Your task to perform on an android device: delete a single message in the gmail app Image 0: 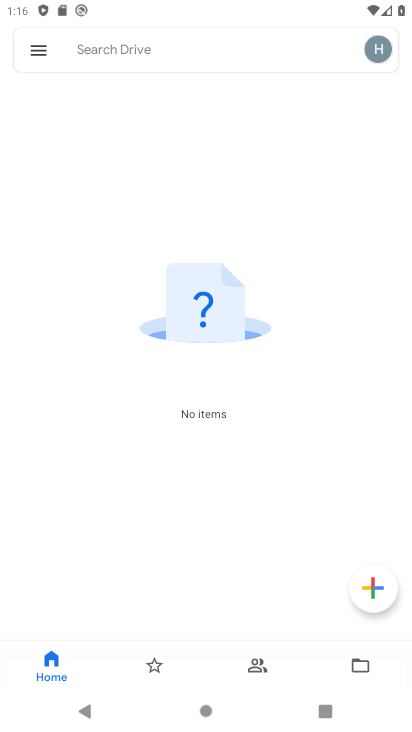
Step 0: drag from (193, 597) to (291, 233)
Your task to perform on an android device: delete a single message in the gmail app Image 1: 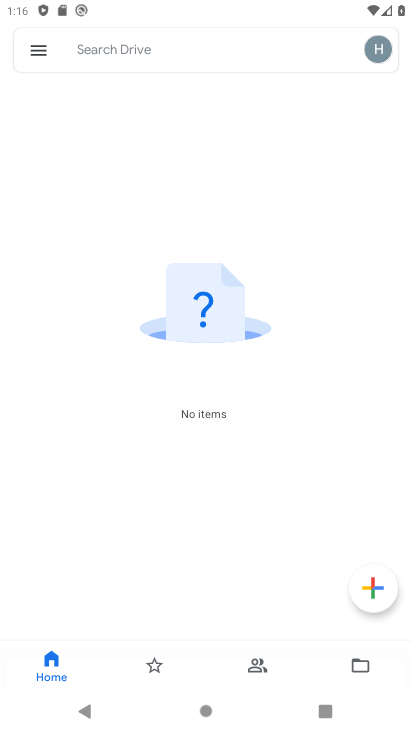
Step 1: press home button
Your task to perform on an android device: delete a single message in the gmail app Image 2: 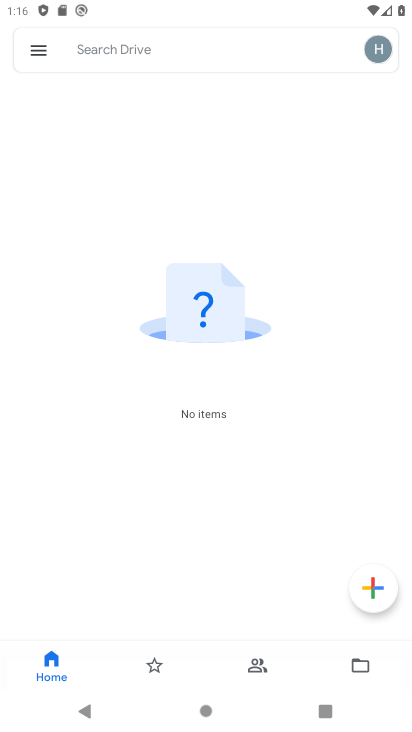
Step 2: drag from (109, 587) to (249, 115)
Your task to perform on an android device: delete a single message in the gmail app Image 3: 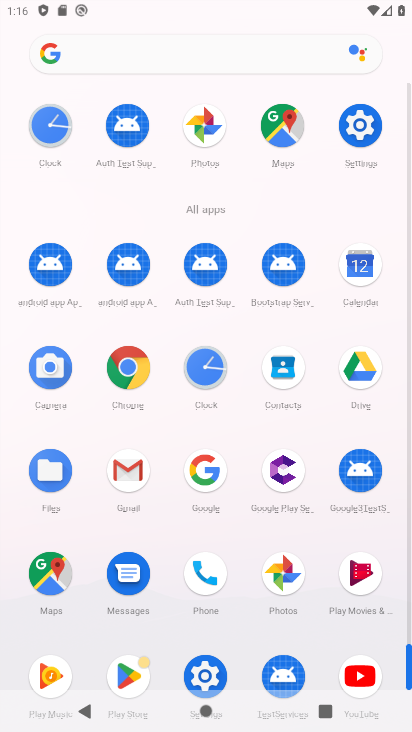
Step 3: click (127, 467)
Your task to perform on an android device: delete a single message in the gmail app Image 4: 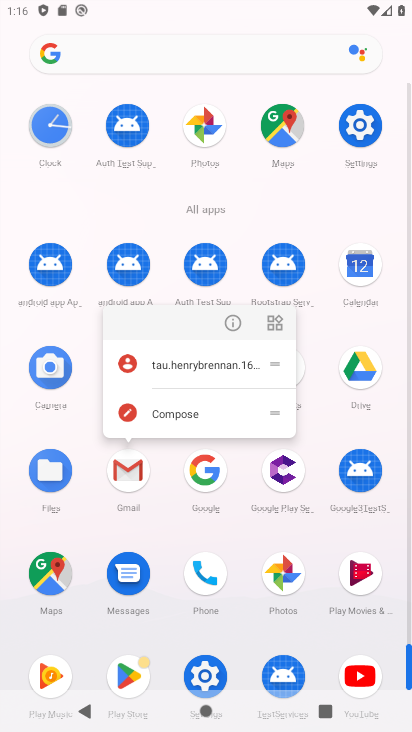
Step 4: click (226, 324)
Your task to perform on an android device: delete a single message in the gmail app Image 5: 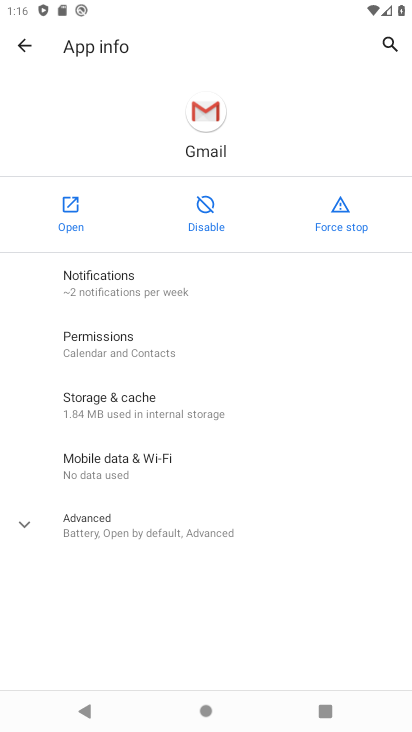
Step 5: click (58, 207)
Your task to perform on an android device: delete a single message in the gmail app Image 6: 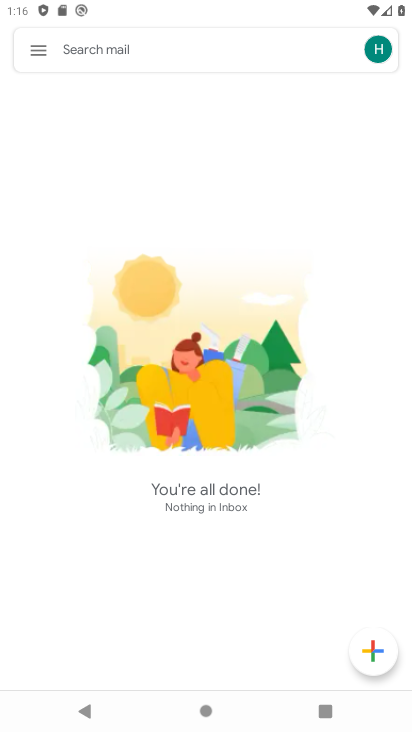
Step 6: click (47, 49)
Your task to perform on an android device: delete a single message in the gmail app Image 7: 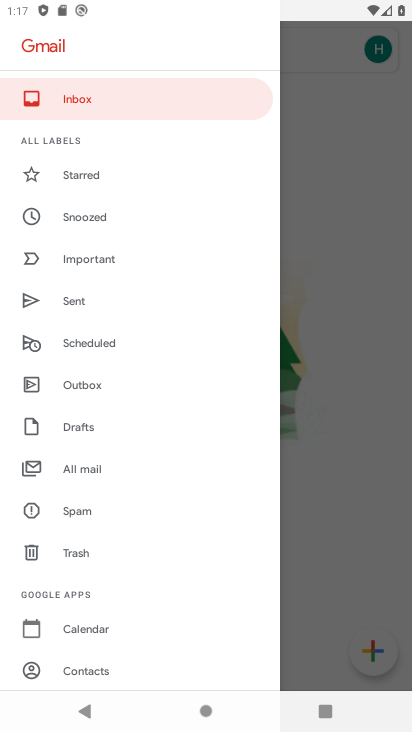
Step 7: drag from (149, 572) to (180, 214)
Your task to perform on an android device: delete a single message in the gmail app Image 8: 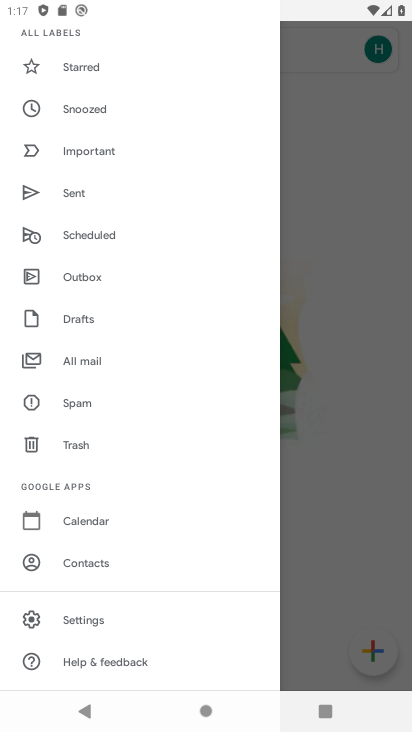
Step 8: click (324, 427)
Your task to perform on an android device: delete a single message in the gmail app Image 9: 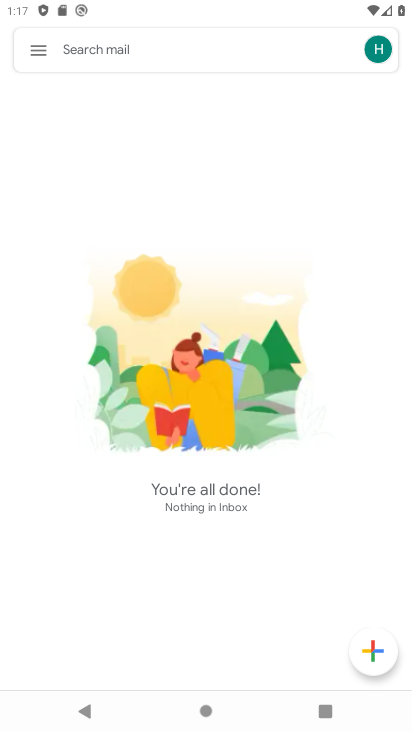
Step 9: task complete